Your task to perform on an android device: Toggle the flashlight Image 0: 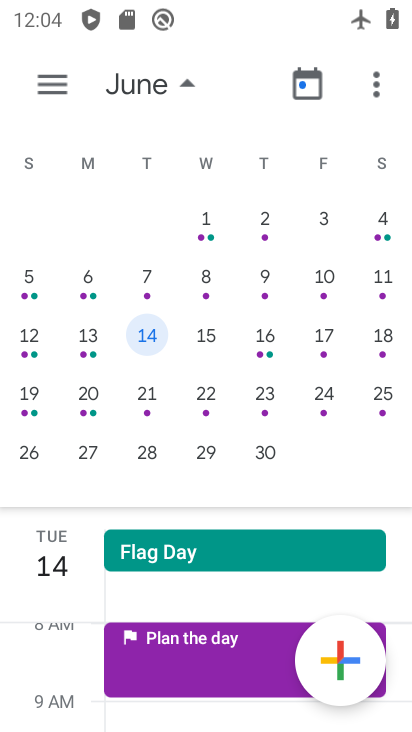
Step 0: press home button
Your task to perform on an android device: Toggle the flashlight Image 1: 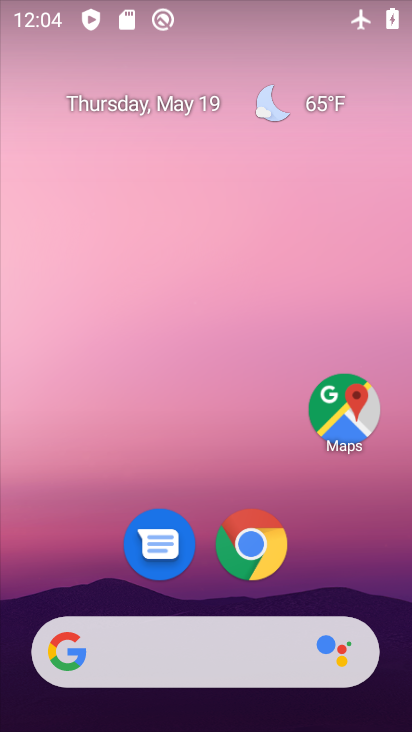
Step 1: drag from (275, 3) to (241, 438)
Your task to perform on an android device: Toggle the flashlight Image 2: 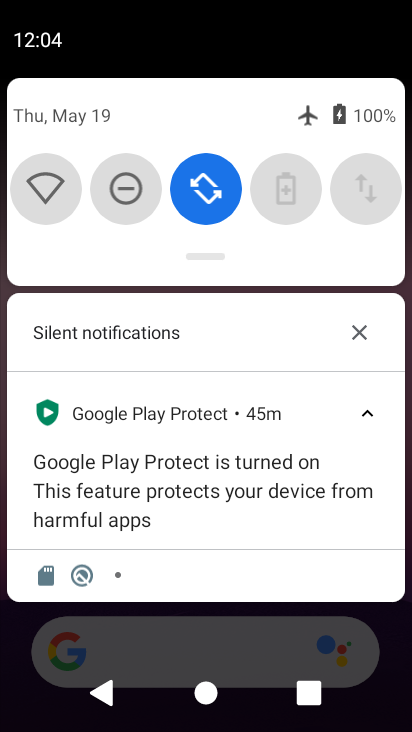
Step 2: drag from (241, 121) to (228, 383)
Your task to perform on an android device: Toggle the flashlight Image 3: 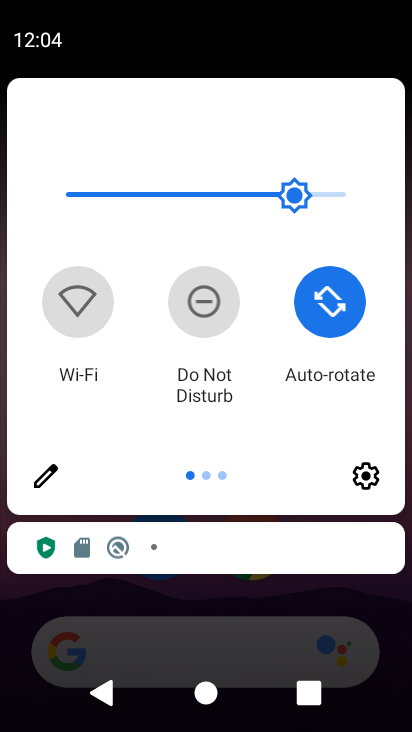
Step 3: click (50, 490)
Your task to perform on an android device: Toggle the flashlight Image 4: 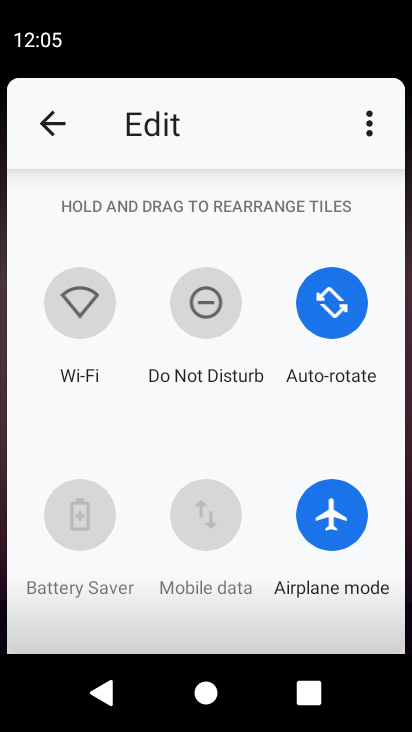
Step 4: task complete